Your task to perform on an android device: Go to Google maps Image 0: 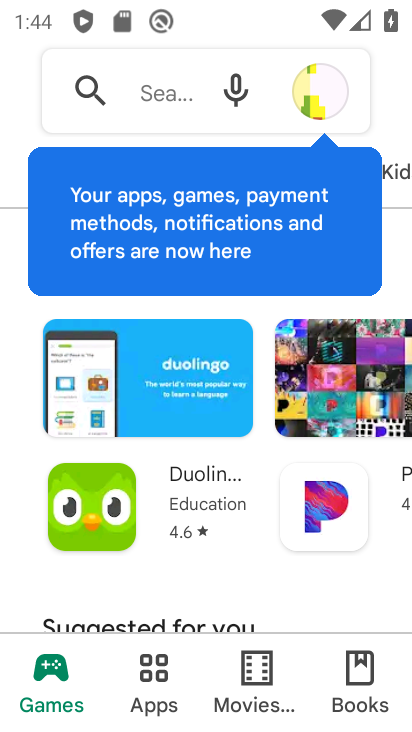
Step 0: press home button
Your task to perform on an android device: Go to Google maps Image 1: 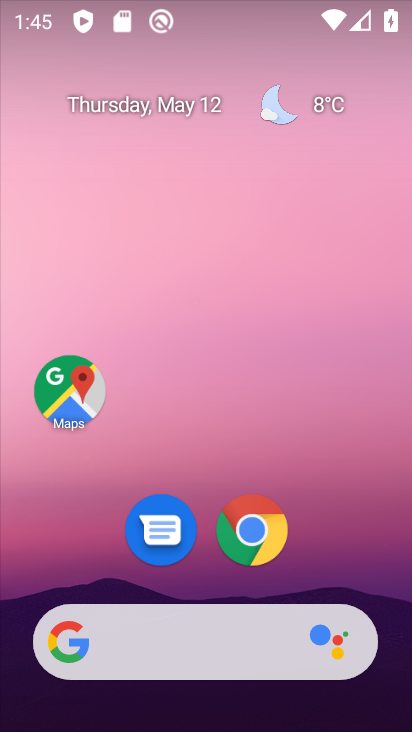
Step 1: click (53, 386)
Your task to perform on an android device: Go to Google maps Image 2: 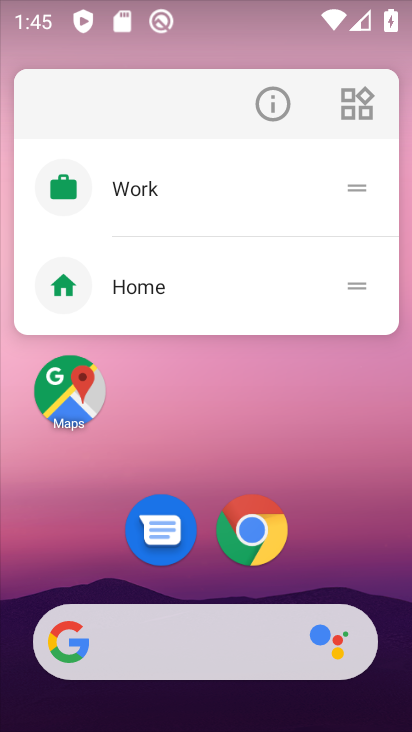
Step 2: click (71, 385)
Your task to perform on an android device: Go to Google maps Image 3: 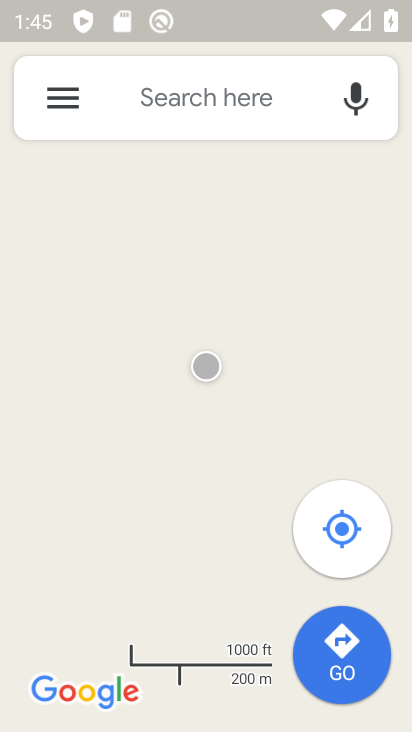
Step 3: task complete